Your task to perform on an android device: Go to ESPN.com Image 0: 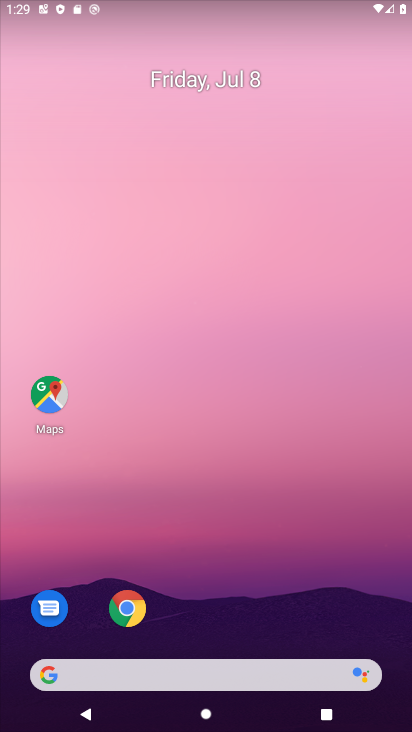
Step 0: drag from (164, 626) to (277, 64)
Your task to perform on an android device: Go to ESPN.com Image 1: 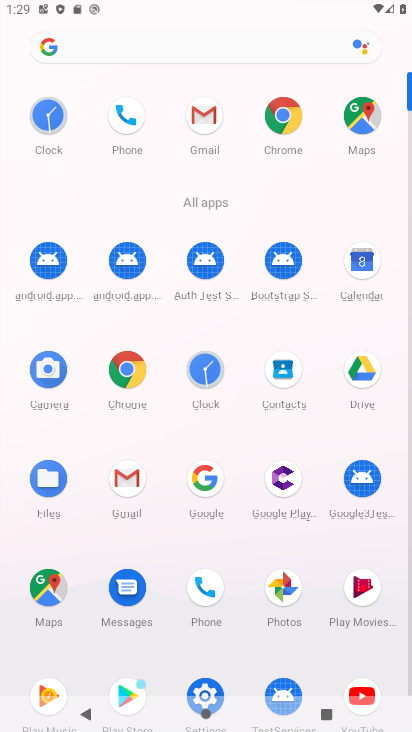
Step 1: click (141, 388)
Your task to perform on an android device: Go to ESPN.com Image 2: 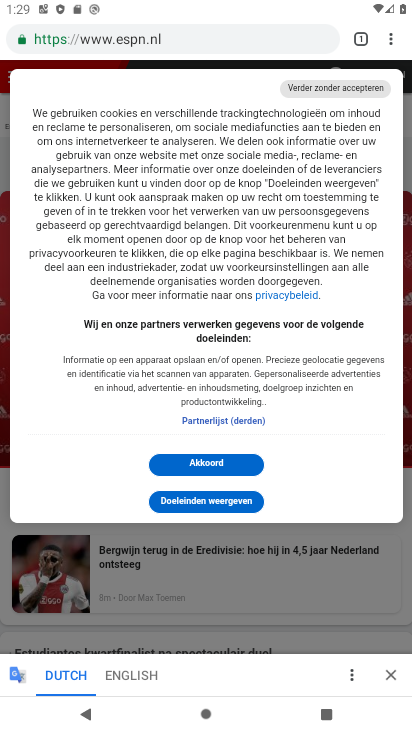
Step 2: click (224, 462)
Your task to perform on an android device: Go to ESPN.com Image 3: 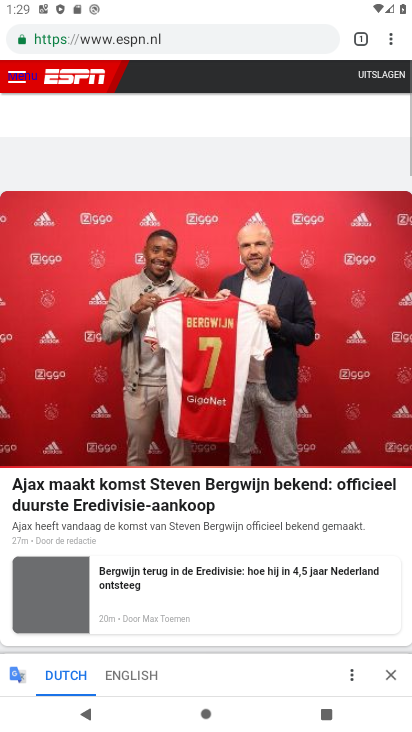
Step 3: task complete